Your task to perform on an android device: open a bookmark in the chrome app Image 0: 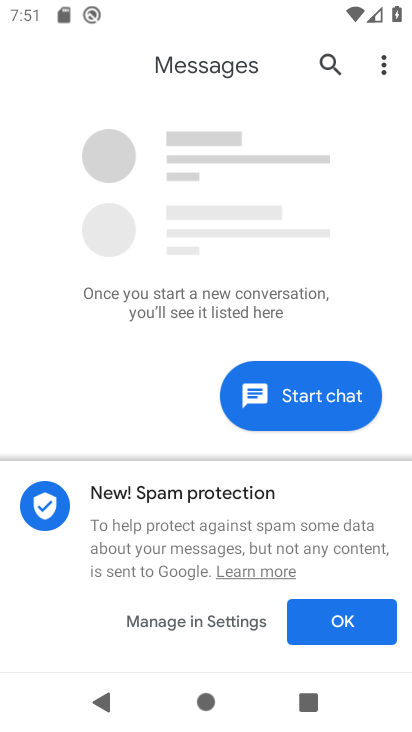
Step 0: press home button
Your task to perform on an android device: open a bookmark in the chrome app Image 1: 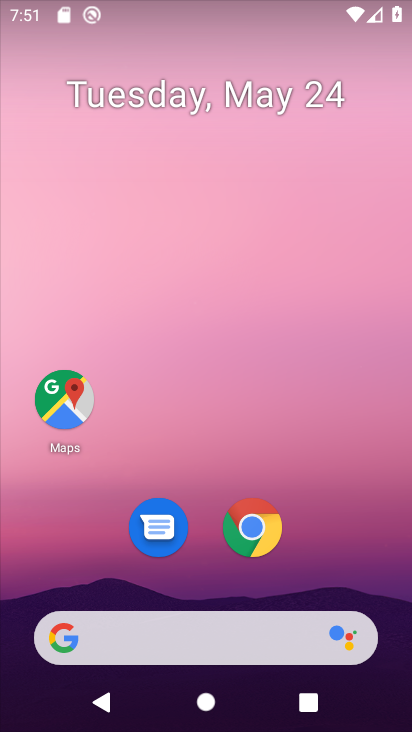
Step 1: click (256, 529)
Your task to perform on an android device: open a bookmark in the chrome app Image 2: 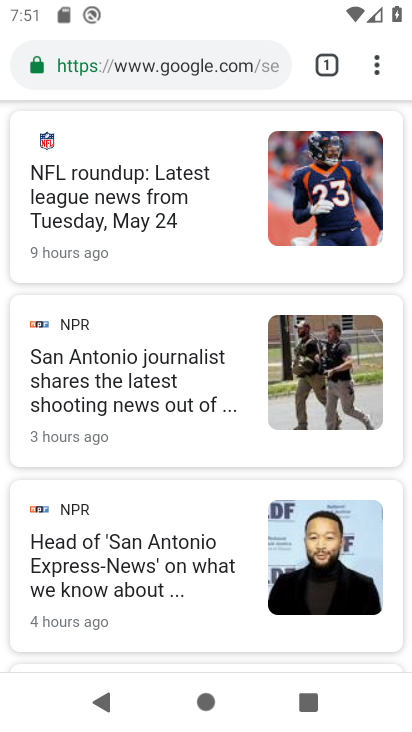
Step 2: drag from (373, 58) to (220, 238)
Your task to perform on an android device: open a bookmark in the chrome app Image 3: 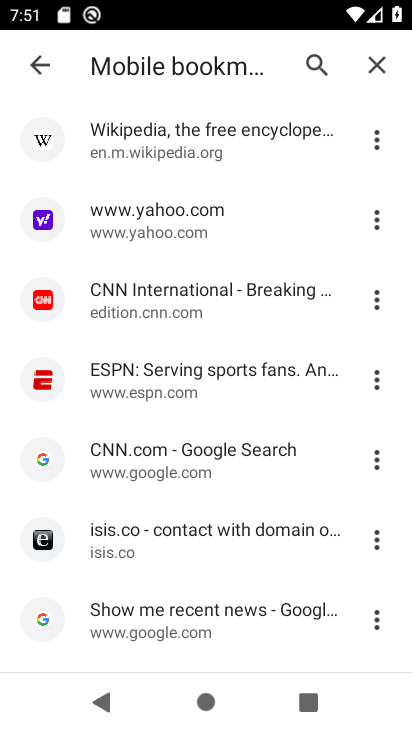
Step 3: click (208, 222)
Your task to perform on an android device: open a bookmark in the chrome app Image 4: 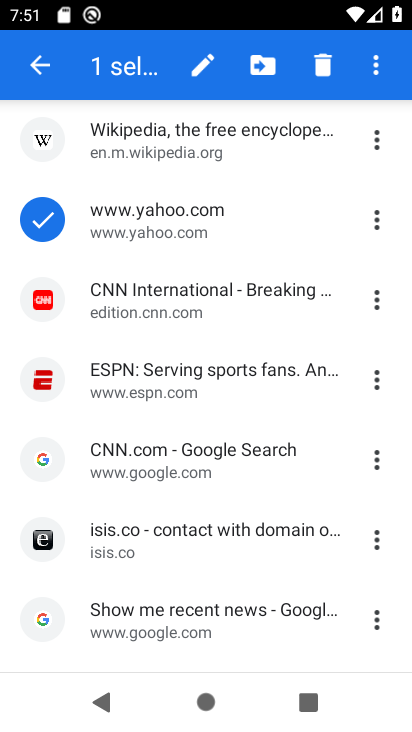
Step 4: click (158, 209)
Your task to perform on an android device: open a bookmark in the chrome app Image 5: 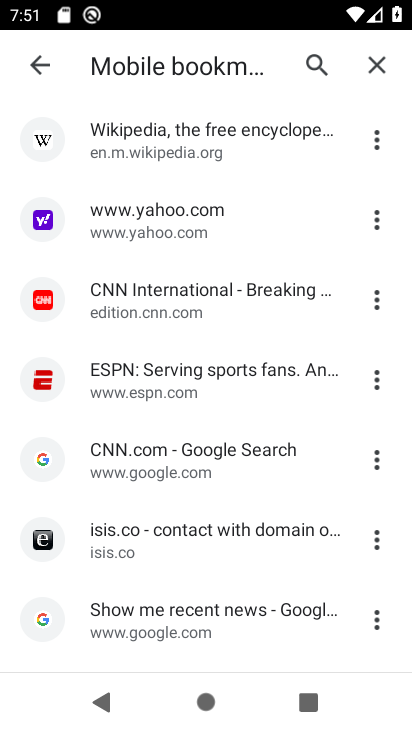
Step 5: click (159, 210)
Your task to perform on an android device: open a bookmark in the chrome app Image 6: 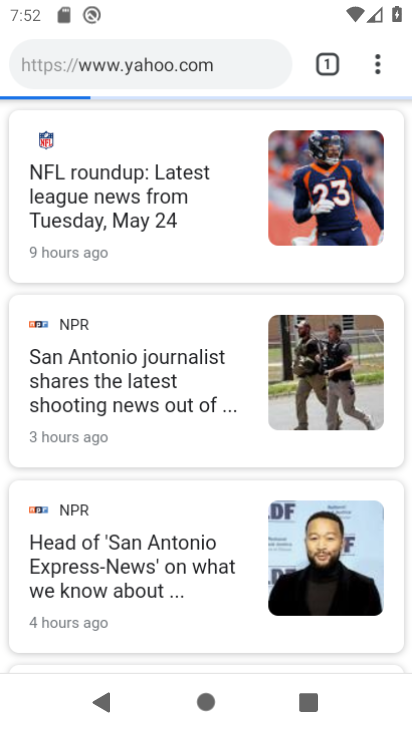
Step 6: click (159, 210)
Your task to perform on an android device: open a bookmark in the chrome app Image 7: 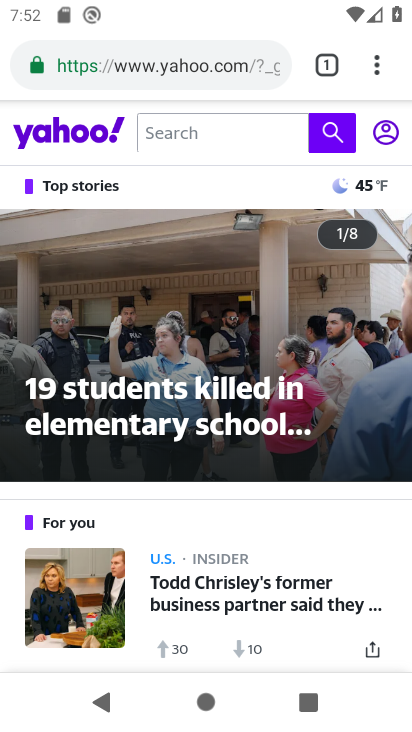
Step 7: task complete